Your task to perform on an android device: change timer sound Image 0: 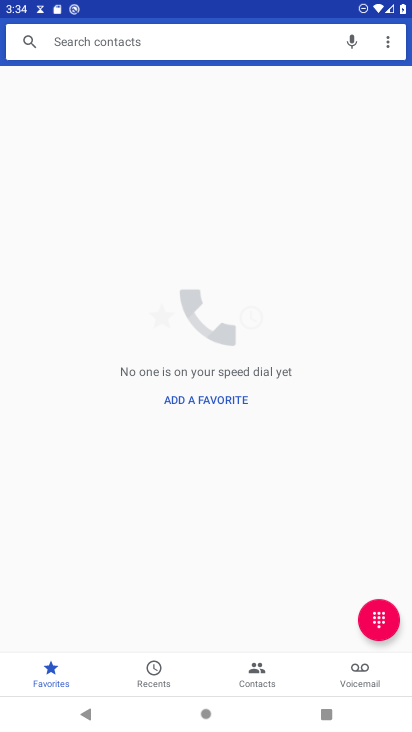
Step 0: press home button
Your task to perform on an android device: change timer sound Image 1: 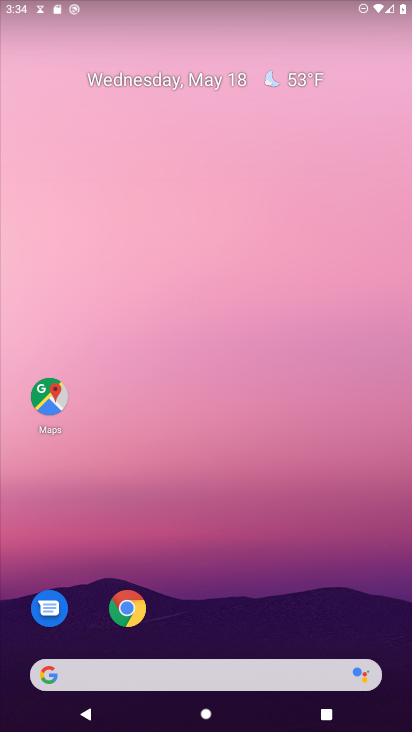
Step 1: drag from (168, 658) to (228, 243)
Your task to perform on an android device: change timer sound Image 2: 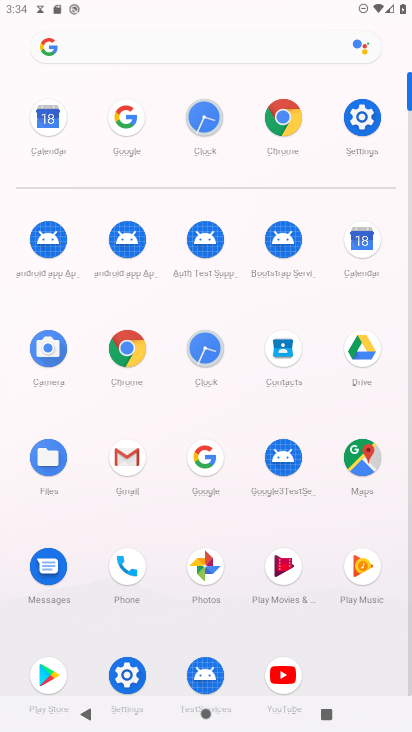
Step 2: click (208, 346)
Your task to perform on an android device: change timer sound Image 3: 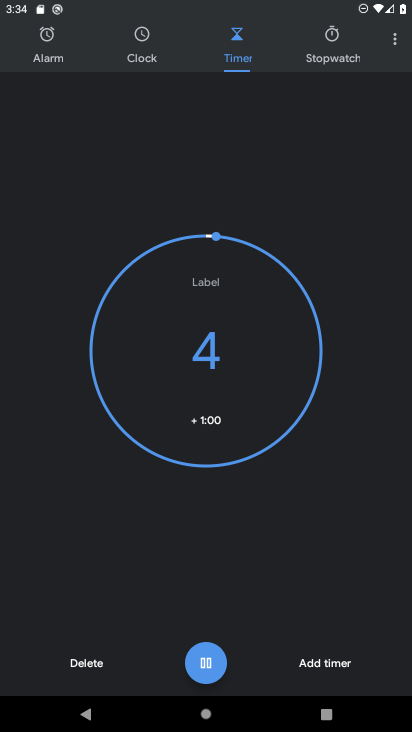
Step 3: click (385, 39)
Your task to perform on an android device: change timer sound Image 4: 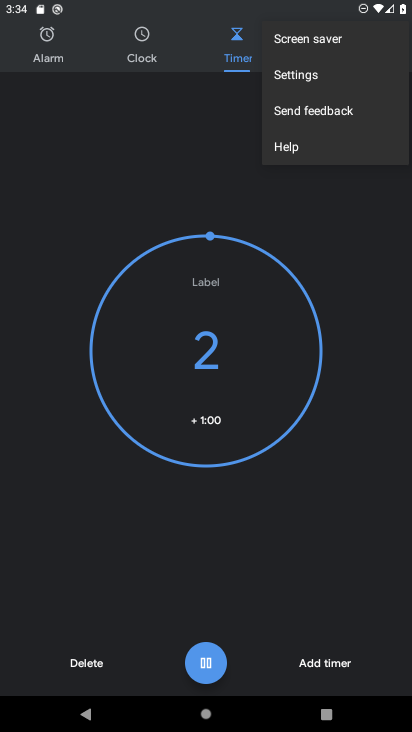
Step 4: click (309, 78)
Your task to perform on an android device: change timer sound Image 5: 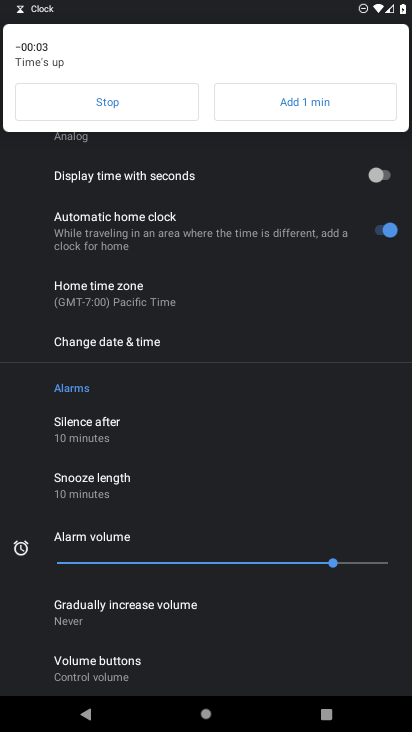
Step 5: click (122, 101)
Your task to perform on an android device: change timer sound Image 6: 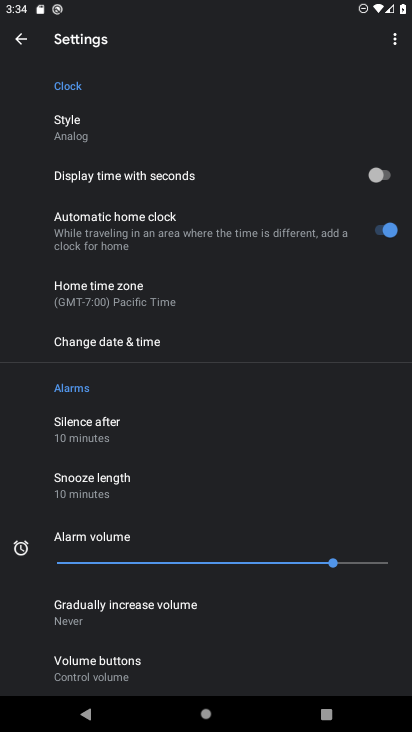
Step 6: drag from (106, 660) to (189, 255)
Your task to perform on an android device: change timer sound Image 7: 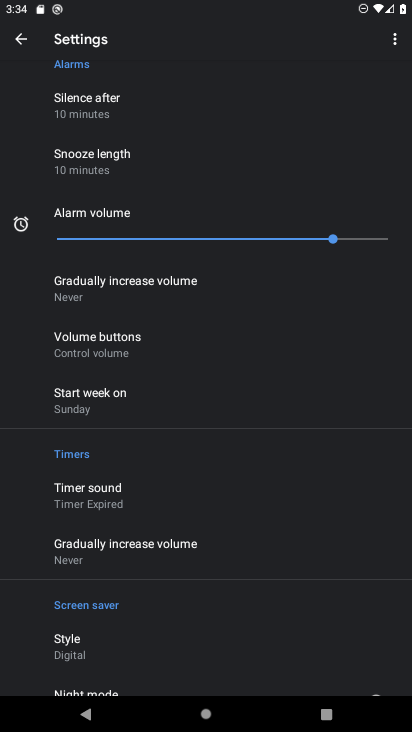
Step 7: click (88, 490)
Your task to perform on an android device: change timer sound Image 8: 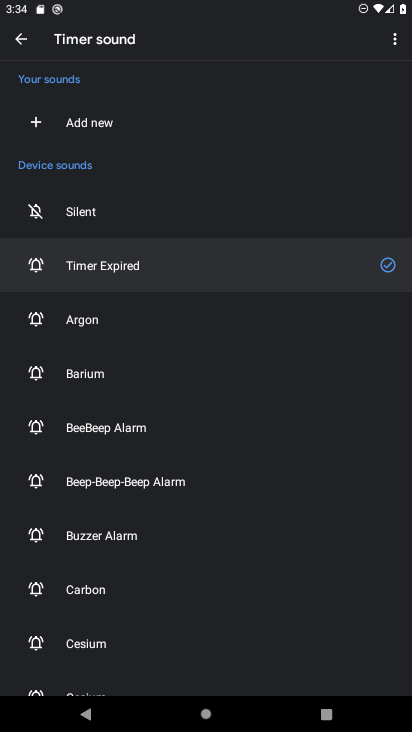
Step 8: click (89, 320)
Your task to perform on an android device: change timer sound Image 9: 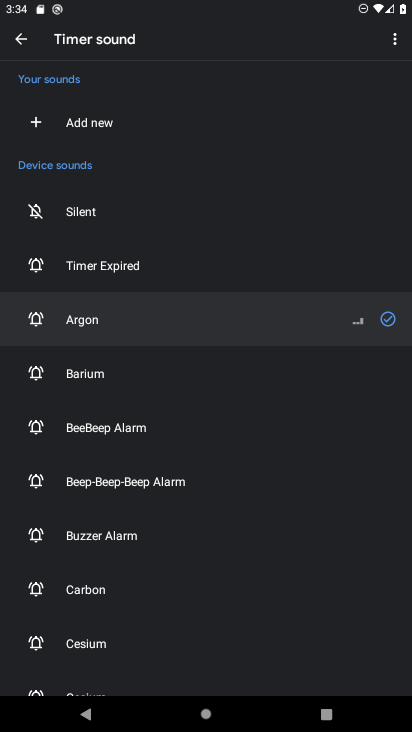
Step 9: task complete